Your task to perform on an android device: Open Google Maps and go to "Timeline" Image 0: 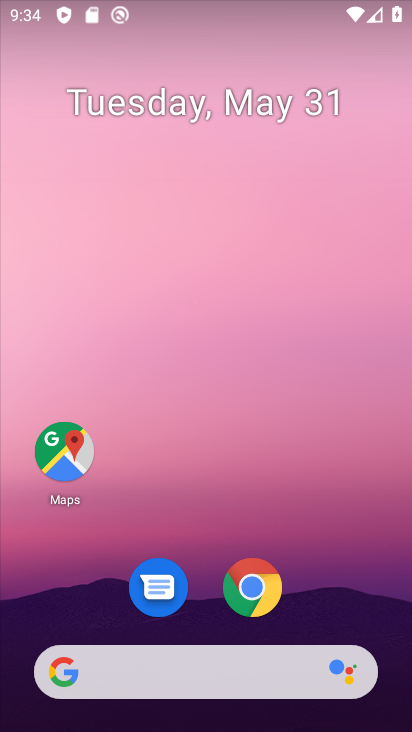
Step 0: drag from (283, 689) to (166, 20)
Your task to perform on an android device: Open Google Maps and go to "Timeline" Image 1: 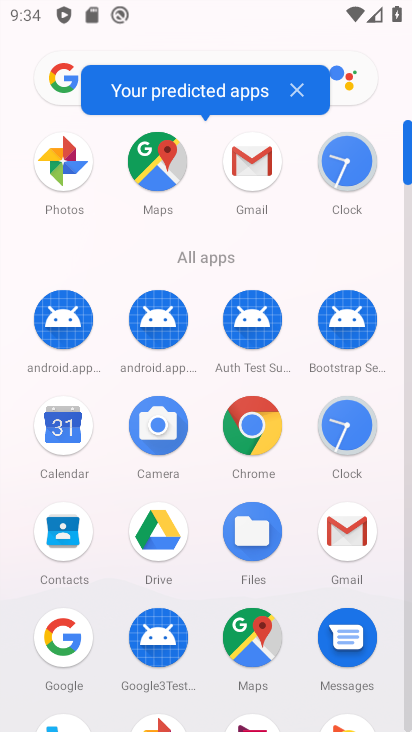
Step 1: click (240, 622)
Your task to perform on an android device: Open Google Maps and go to "Timeline" Image 2: 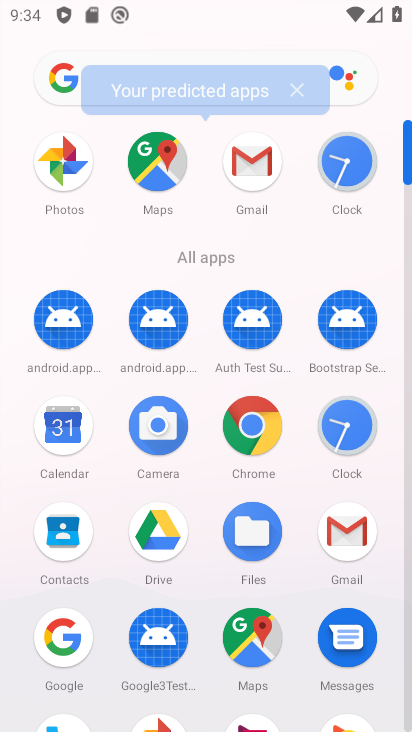
Step 2: click (240, 622)
Your task to perform on an android device: Open Google Maps and go to "Timeline" Image 3: 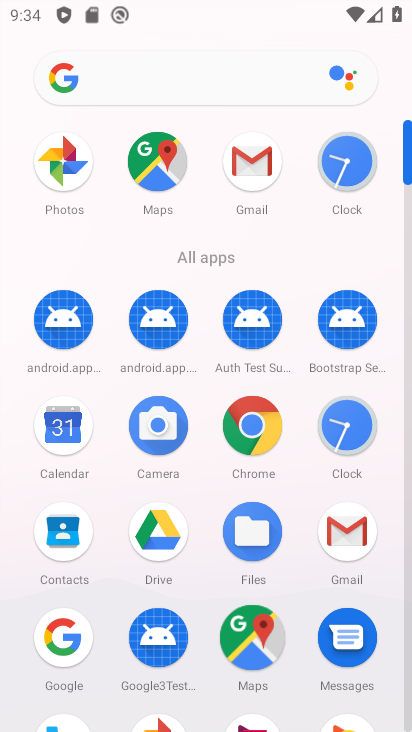
Step 3: click (243, 631)
Your task to perform on an android device: Open Google Maps and go to "Timeline" Image 4: 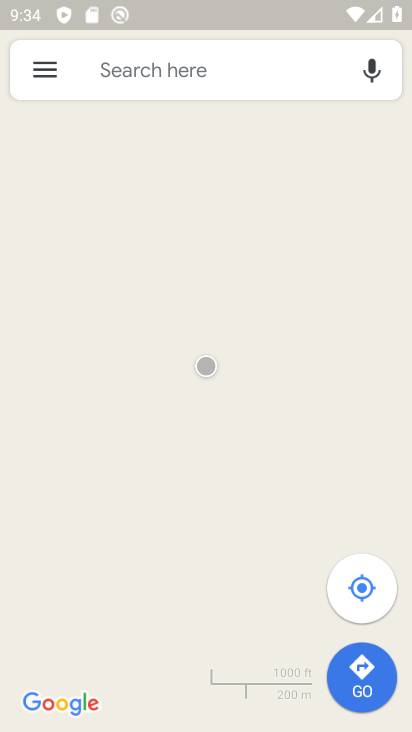
Step 4: click (36, 71)
Your task to perform on an android device: Open Google Maps and go to "Timeline" Image 5: 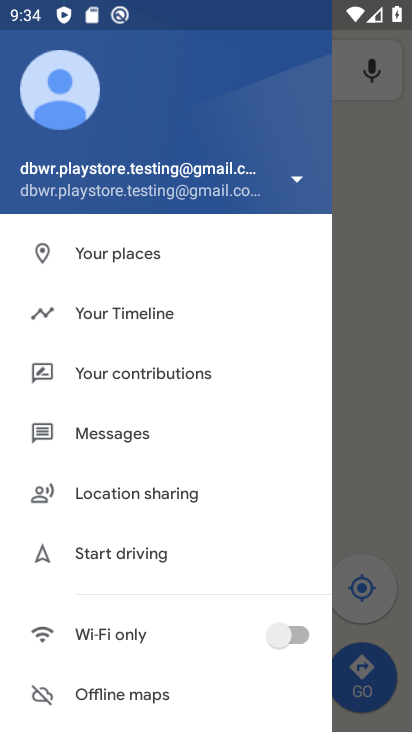
Step 5: click (139, 314)
Your task to perform on an android device: Open Google Maps and go to "Timeline" Image 6: 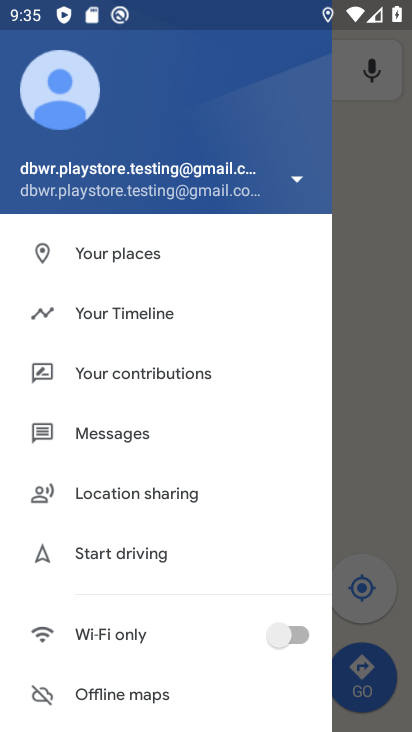
Step 6: click (139, 314)
Your task to perform on an android device: Open Google Maps and go to "Timeline" Image 7: 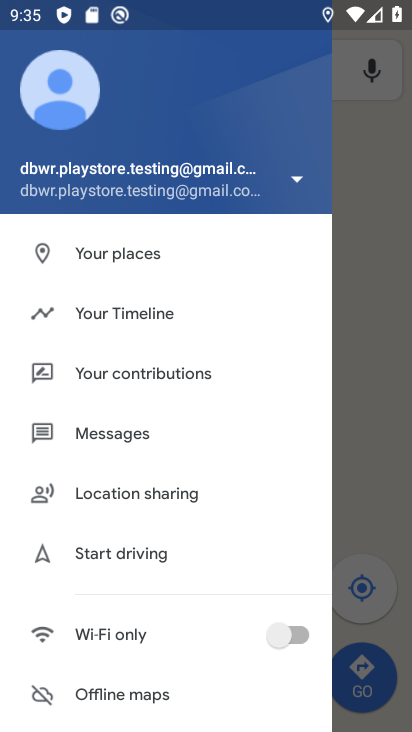
Step 7: click (139, 314)
Your task to perform on an android device: Open Google Maps and go to "Timeline" Image 8: 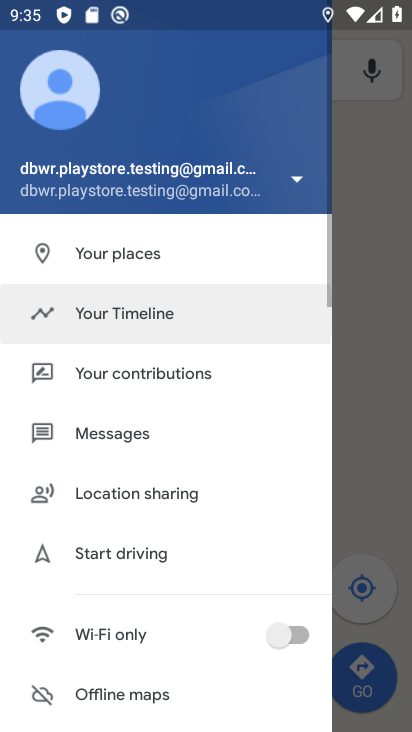
Step 8: click (140, 315)
Your task to perform on an android device: Open Google Maps and go to "Timeline" Image 9: 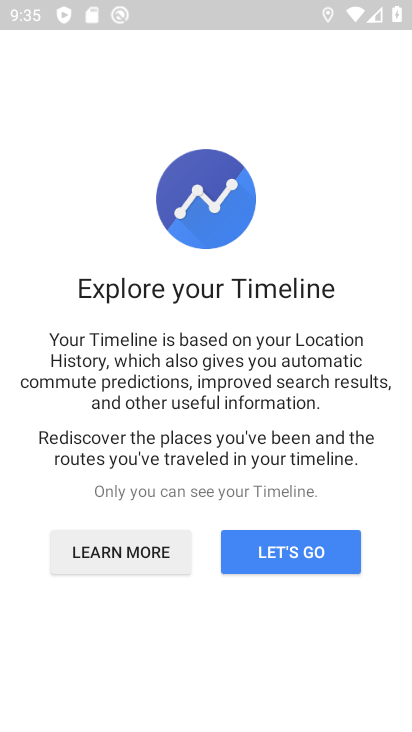
Step 9: click (291, 552)
Your task to perform on an android device: Open Google Maps and go to "Timeline" Image 10: 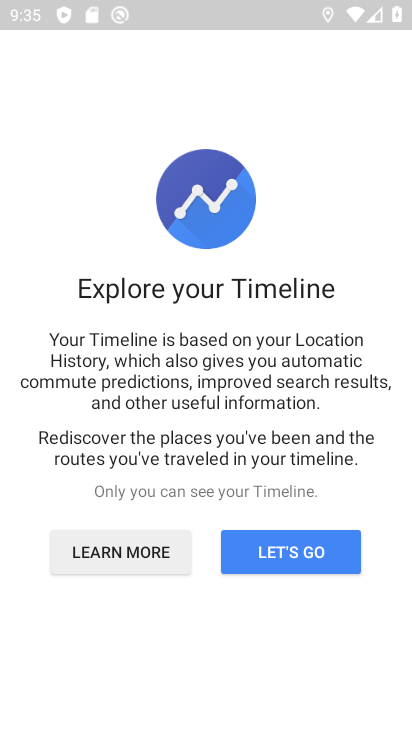
Step 10: click (289, 543)
Your task to perform on an android device: Open Google Maps and go to "Timeline" Image 11: 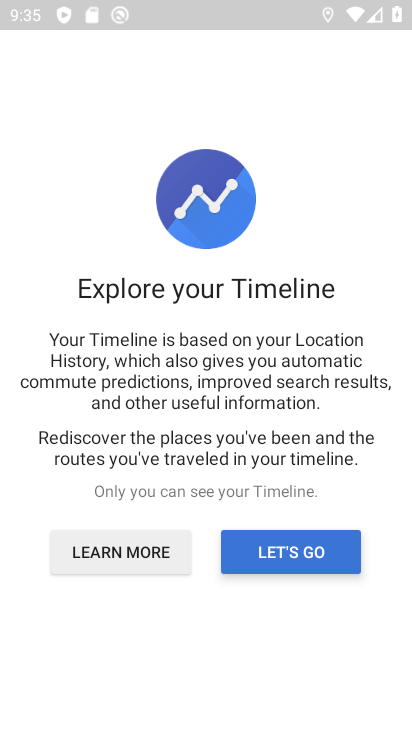
Step 11: click (287, 541)
Your task to perform on an android device: Open Google Maps and go to "Timeline" Image 12: 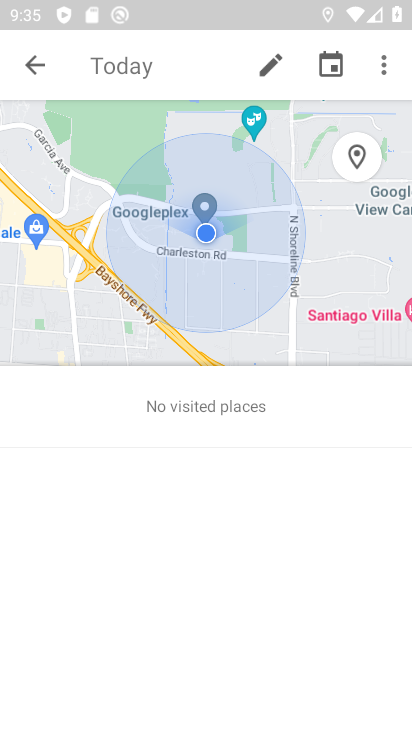
Step 12: task complete